Your task to perform on an android device: turn on data saver in the chrome app Image 0: 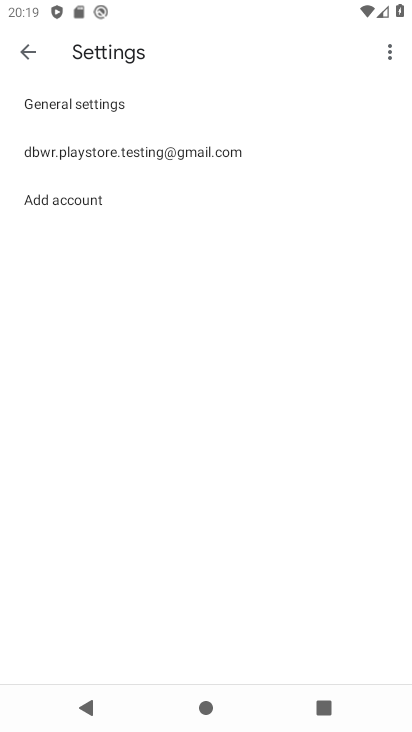
Step 0: press home button
Your task to perform on an android device: turn on data saver in the chrome app Image 1: 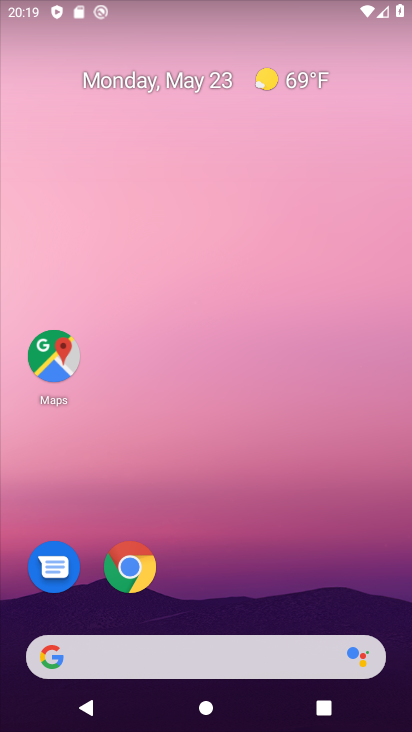
Step 1: click (141, 562)
Your task to perform on an android device: turn on data saver in the chrome app Image 2: 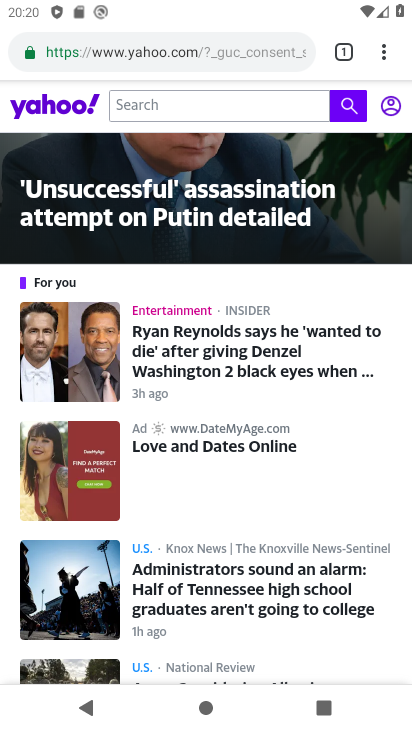
Step 2: click (381, 55)
Your task to perform on an android device: turn on data saver in the chrome app Image 3: 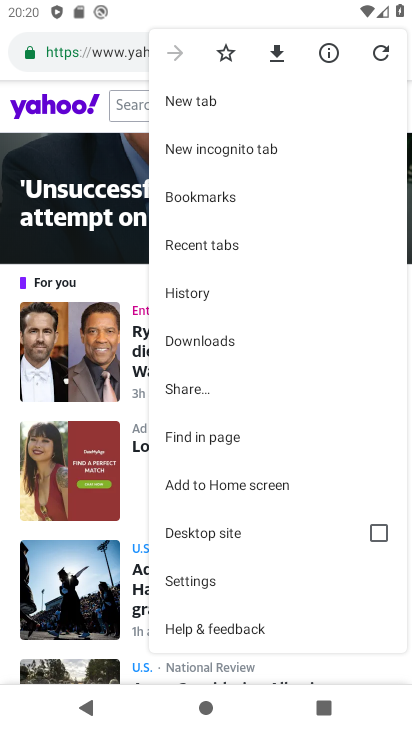
Step 3: click (205, 586)
Your task to perform on an android device: turn on data saver in the chrome app Image 4: 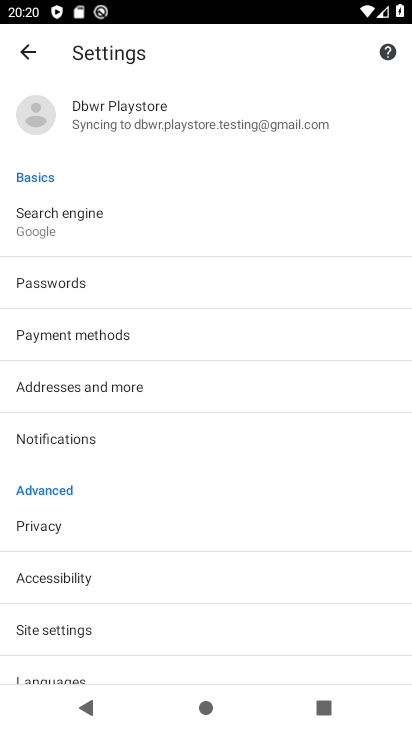
Step 4: drag from (97, 569) to (125, 273)
Your task to perform on an android device: turn on data saver in the chrome app Image 5: 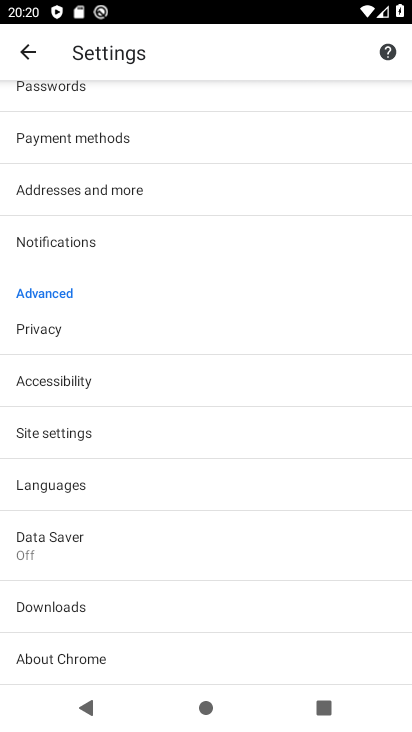
Step 5: click (63, 548)
Your task to perform on an android device: turn on data saver in the chrome app Image 6: 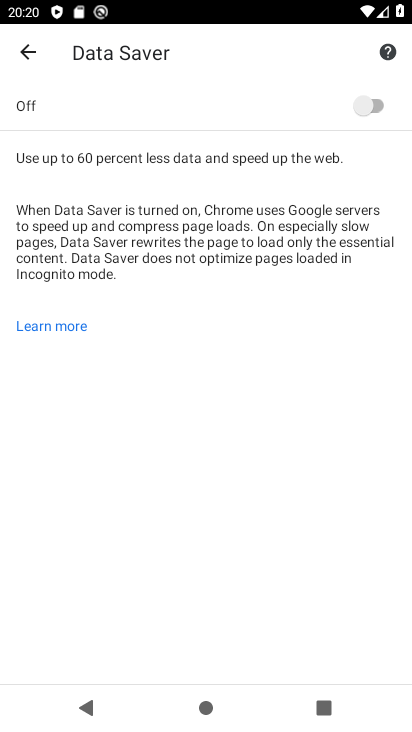
Step 6: click (385, 108)
Your task to perform on an android device: turn on data saver in the chrome app Image 7: 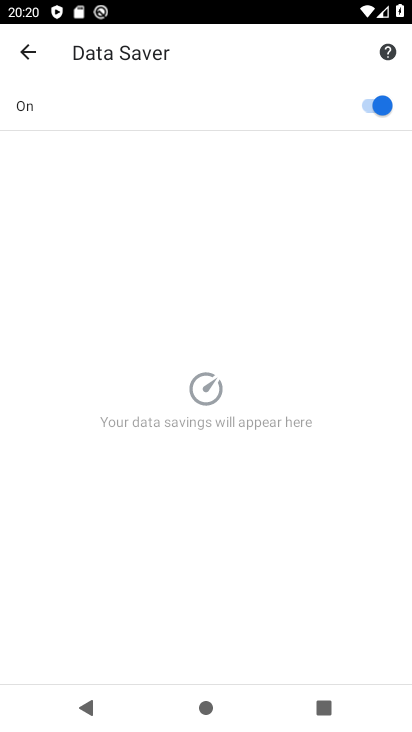
Step 7: task complete